Your task to perform on an android device: turn off priority inbox in the gmail app Image 0: 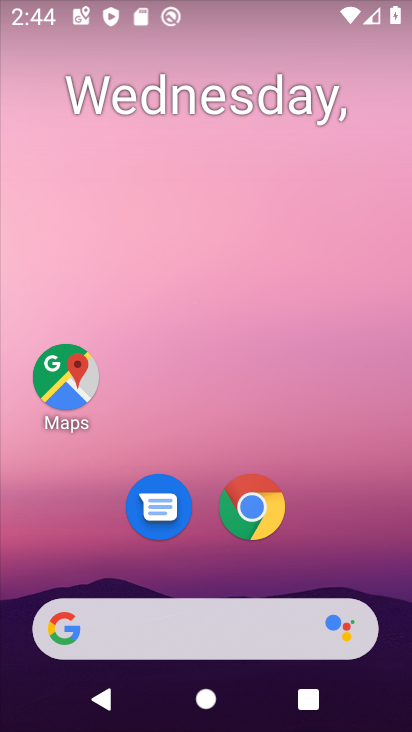
Step 0: drag from (315, 514) to (344, 18)
Your task to perform on an android device: turn off priority inbox in the gmail app Image 1: 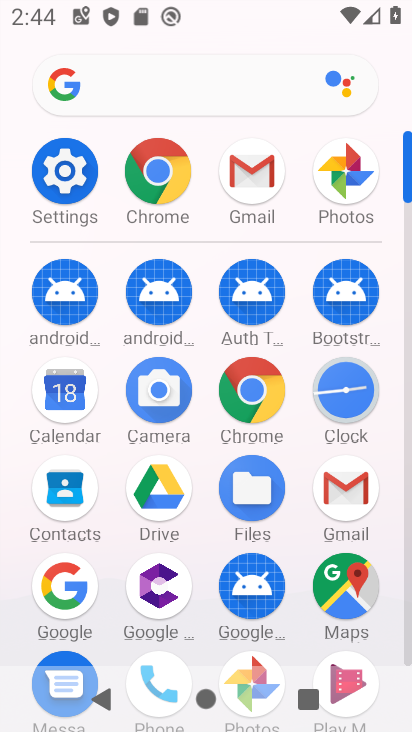
Step 1: click (251, 159)
Your task to perform on an android device: turn off priority inbox in the gmail app Image 2: 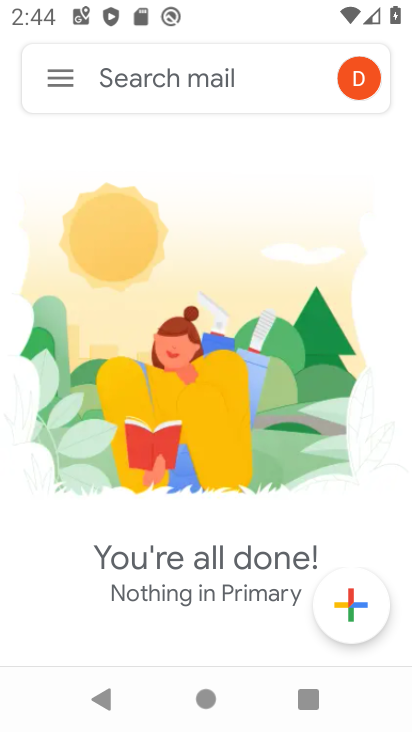
Step 2: click (80, 82)
Your task to perform on an android device: turn off priority inbox in the gmail app Image 3: 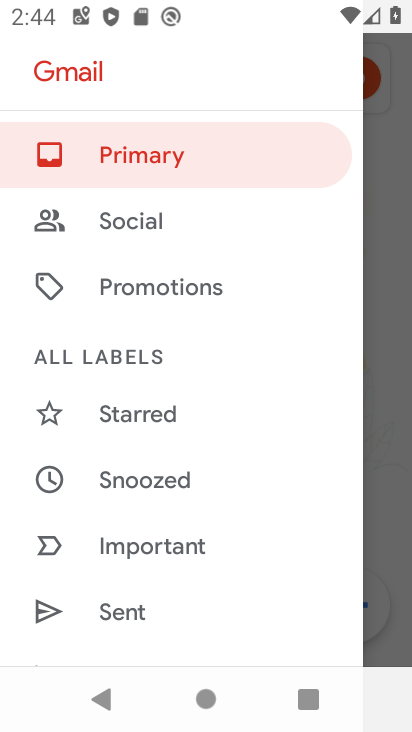
Step 3: drag from (208, 591) to (203, 185)
Your task to perform on an android device: turn off priority inbox in the gmail app Image 4: 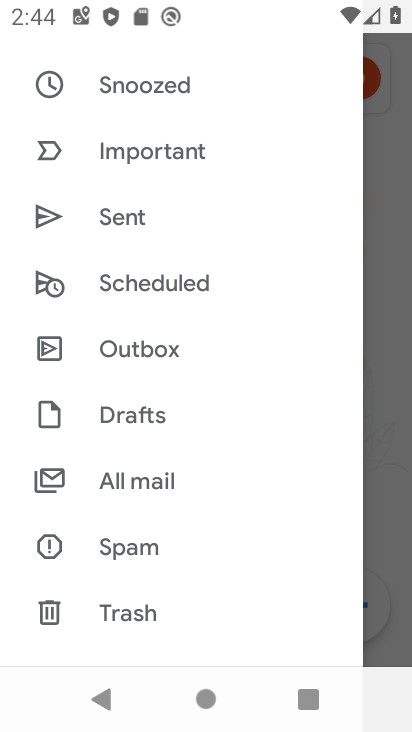
Step 4: drag from (207, 569) to (220, 163)
Your task to perform on an android device: turn off priority inbox in the gmail app Image 5: 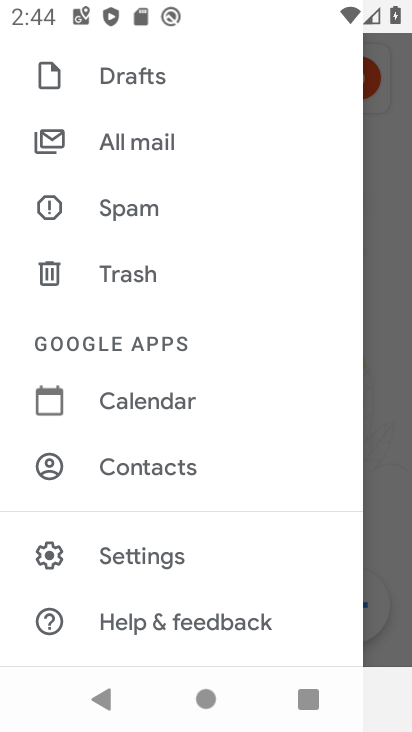
Step 5: click (197, 557)
Your task to perform on an android device: turn off priority inbox in the gmail app Image 6: 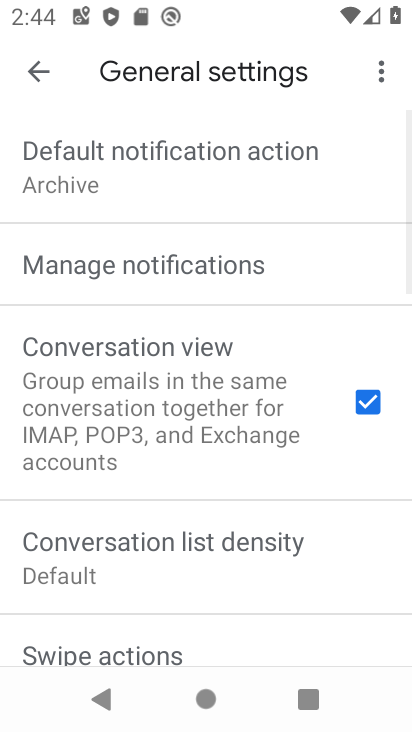
Step 6: task complete